Your task to perform on an android device: Go to Android settings Image 0: 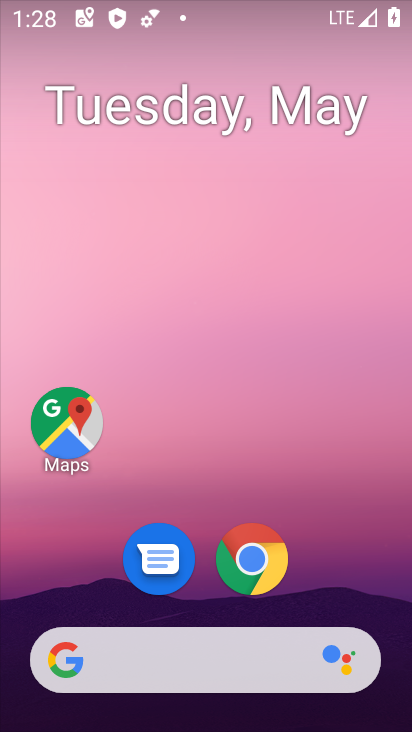
Step 0: drag from (343, 575) to (257, 78)
Your task to perform on an android device: Go to Android settings Image 1: 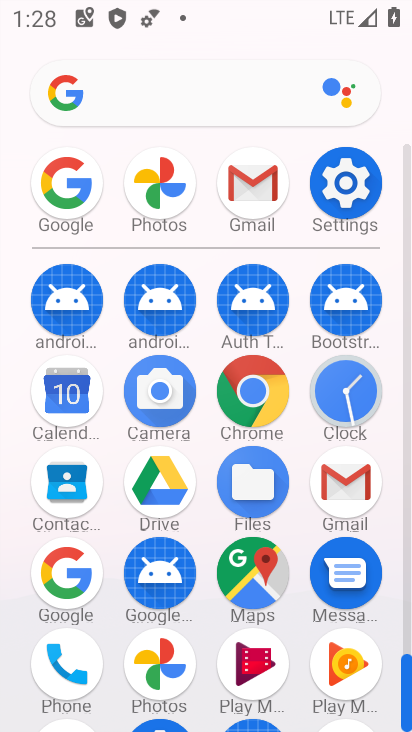
Step 1: click (328, 189)
Your task to perform on an android device: Go to Android settings Image 2: 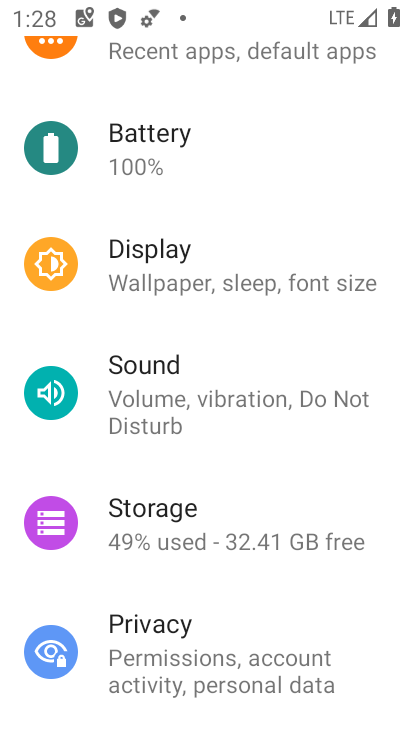
Step 2: drag from (229, 595) to (247, 58)
Your task to perform on an android device: Go to Android settings Image 3: 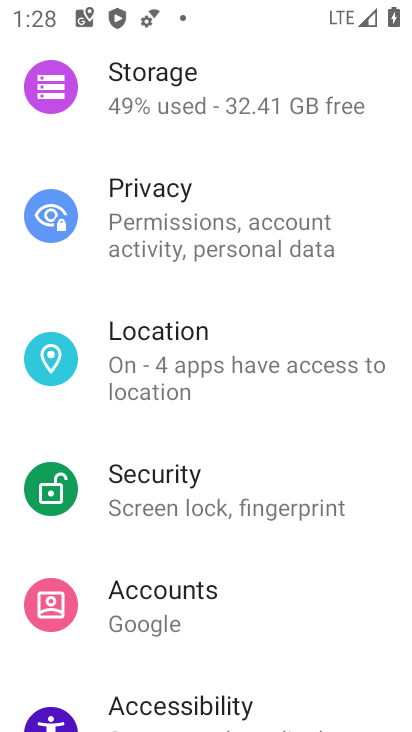
Step 3: drag from (264, 653) to (246, 17)
Your task to perform on an android device: Go to Android settings Image 4: 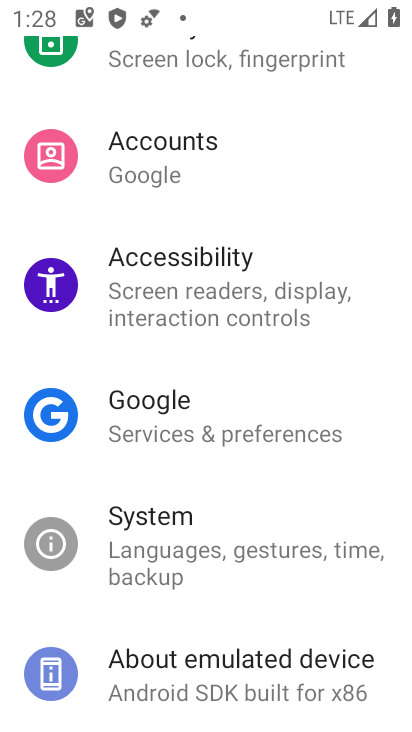
Step 4: drag from (247, 633) to (252, 320)
Your task to perform on an android device: Go to Android settings Image 5: 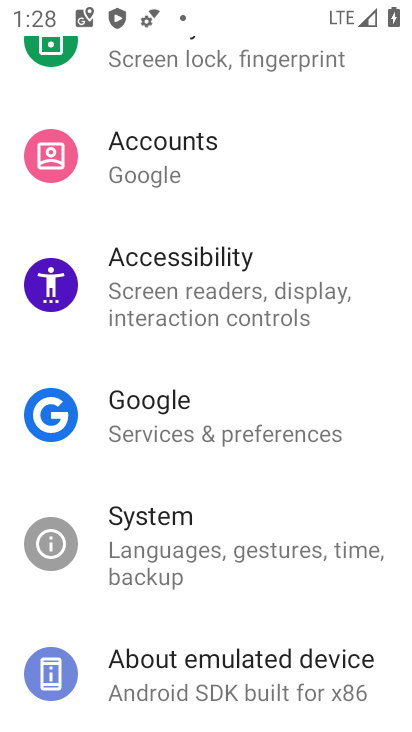
Step 5: click (221, 673)
Your task to perform on an android device: Go to Android settings Image 6: 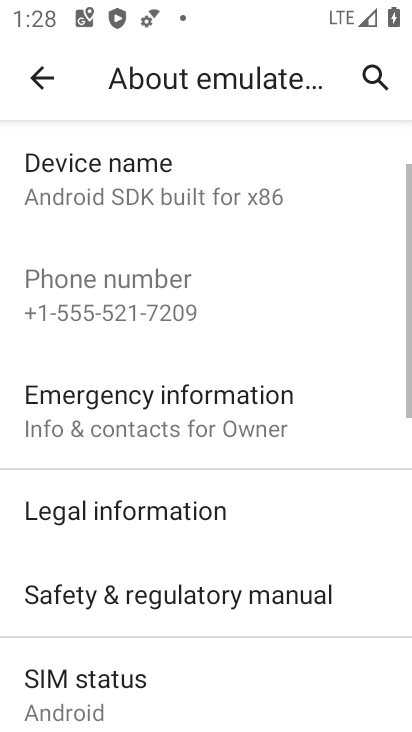
Step 6: drag from (231, 629) to (226, 213)
Your task to perform on an android device: Go to Android settings Image 7: 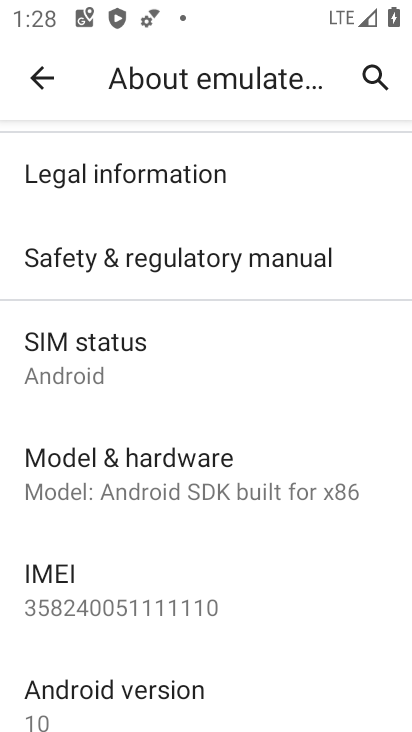
Step 7: drag from (181, 625) to (182, 283)
Your task to perform on an android device: Go to Android settings Image 8: 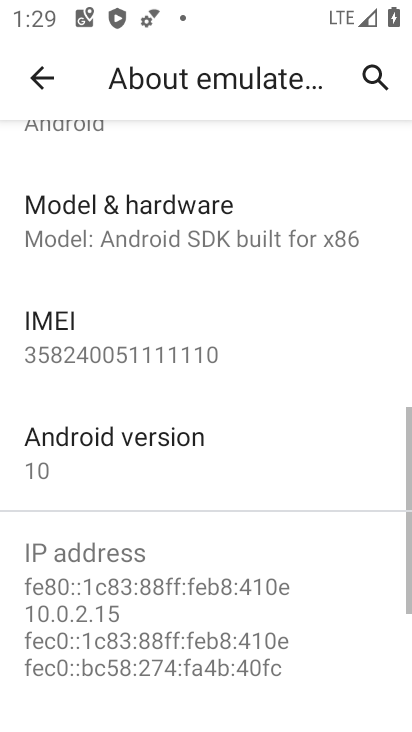
Step 8: click (158, 462)
Your task to perform on an android device: Go to Android settings Image 9: 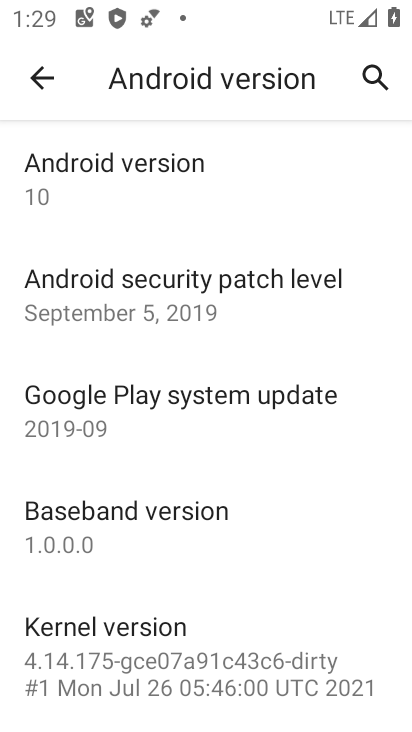
Step 9: task complete